Your task to perform on an android device: turn off location Image 0: 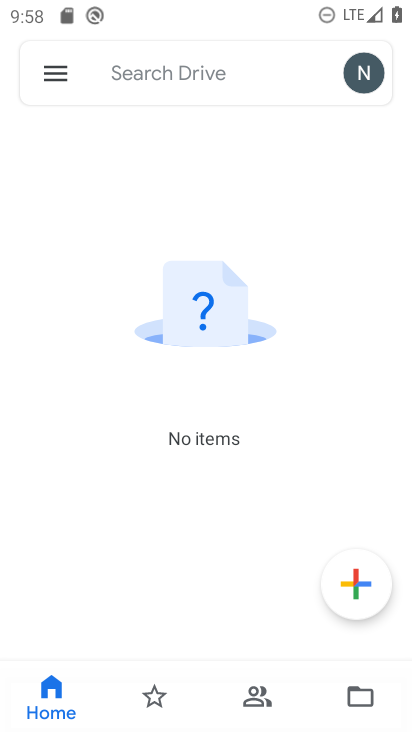
Step 0: press home button
Your task to perform on an android device: turn off location Image 1: 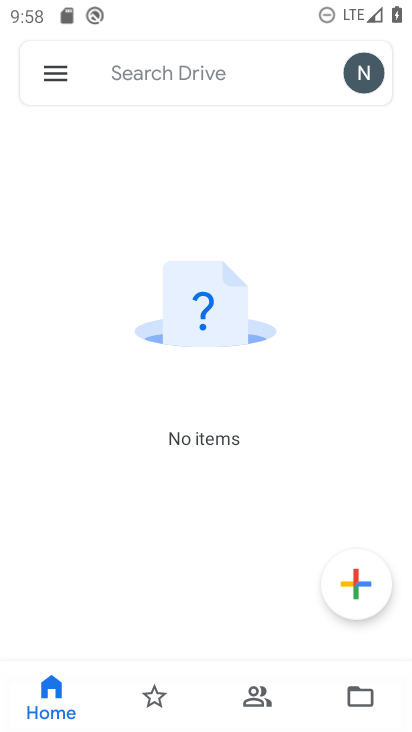
Step 1: press home button
Your task to perform on an android device: turn off location Image 2: 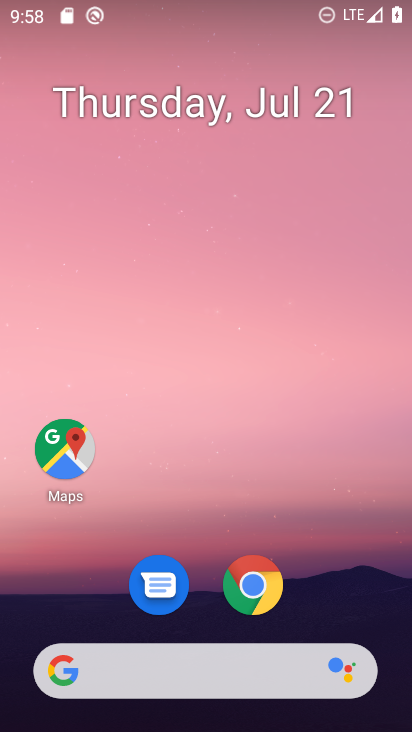
Step 2: drag from (345, 585) to (295, 51)
Your task to perform on an android device: turn off location Image 3: 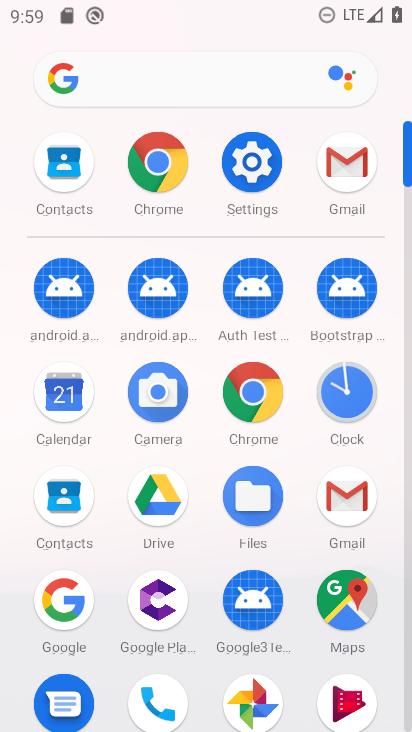
Step 3: click (258, 167)
Your task to perform on an android device: turn off location Image 4: 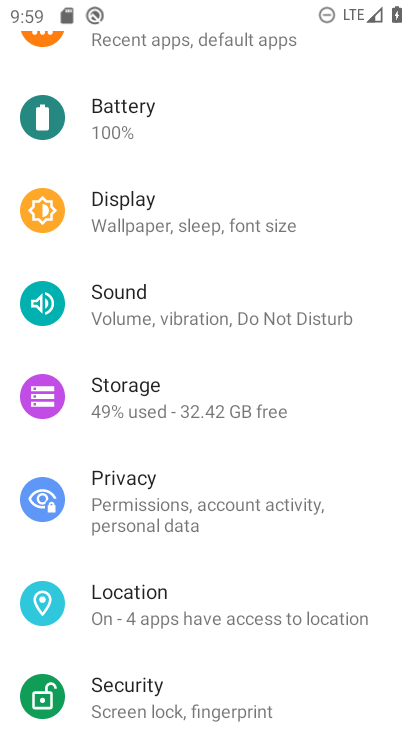
Step 4: click (204, 600)
Your task to perform on an android device: turn off location Image 5: 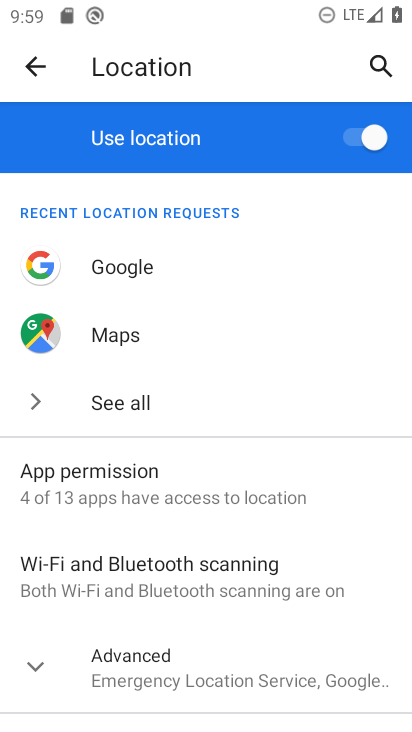
Step 5: click (360, 136)
Your task to perform on an android device: turn off location Image 6: 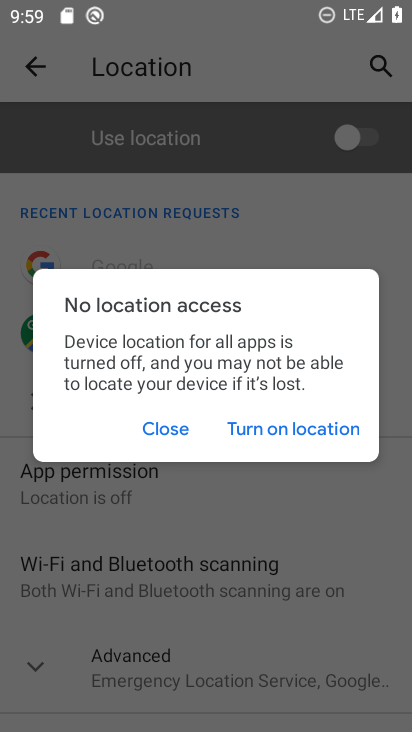
Step 6: click (167, 428)
Your task to perform on an android device: turn off location Image 7: 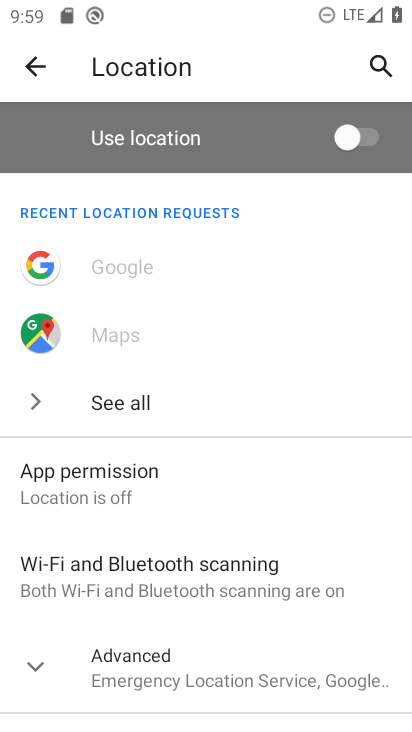
Step 7: task complete